Your task to perform on an android device: turn vacation reply on in the gmail app Image 0: 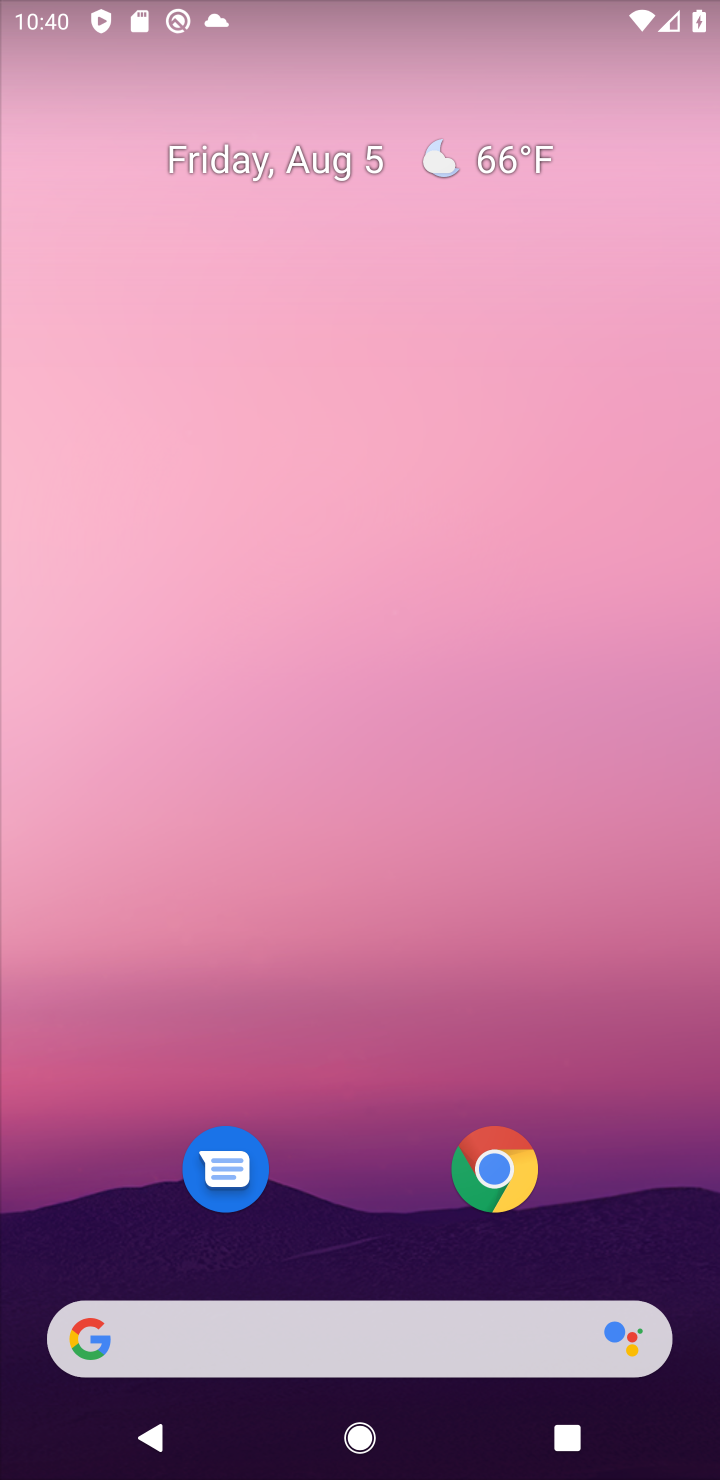
Step 0: drag from (625, 1115) to (572, 212)
Your task to perform on an android device: turn vacation reply on in the gmail app Image 1: 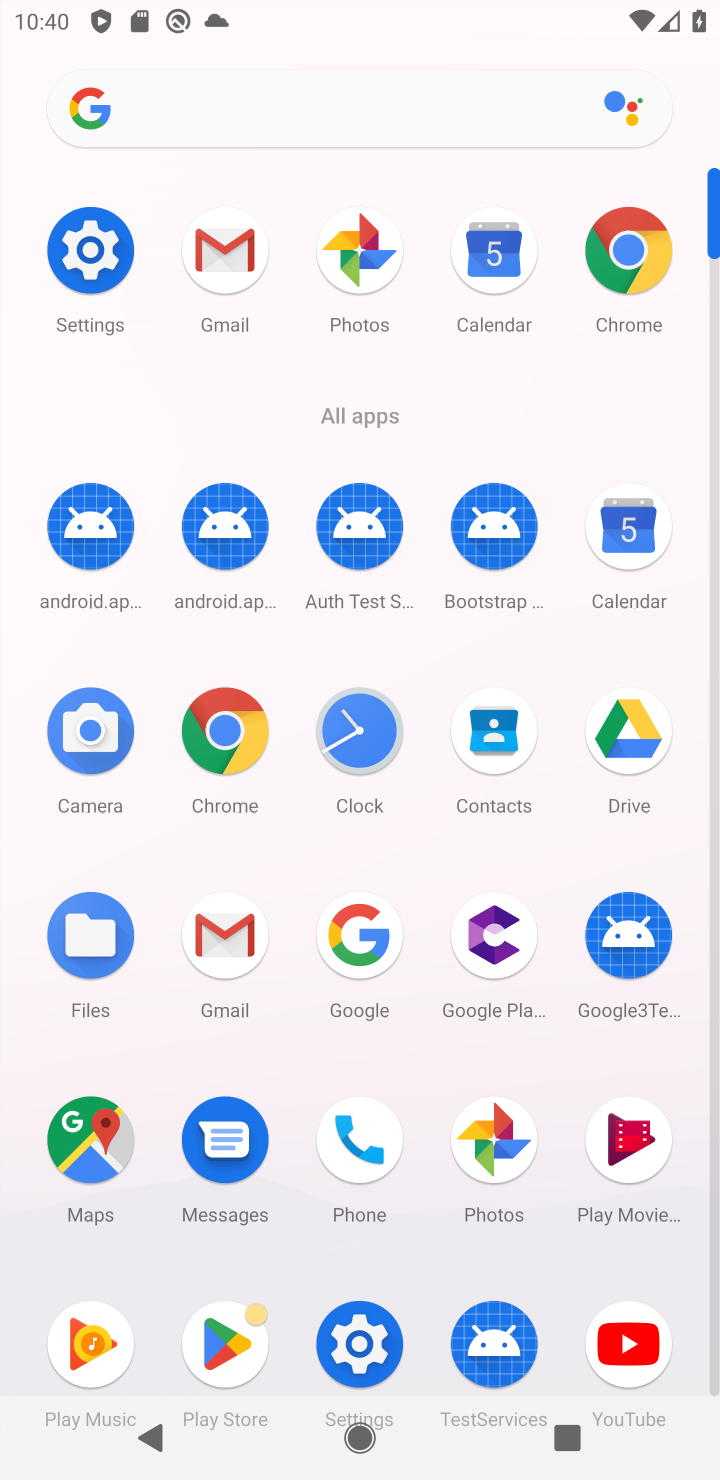
Step 1: click (222, 930)
Your task to perform on an android device: turn vacation reply on in the gmail app Image 2: 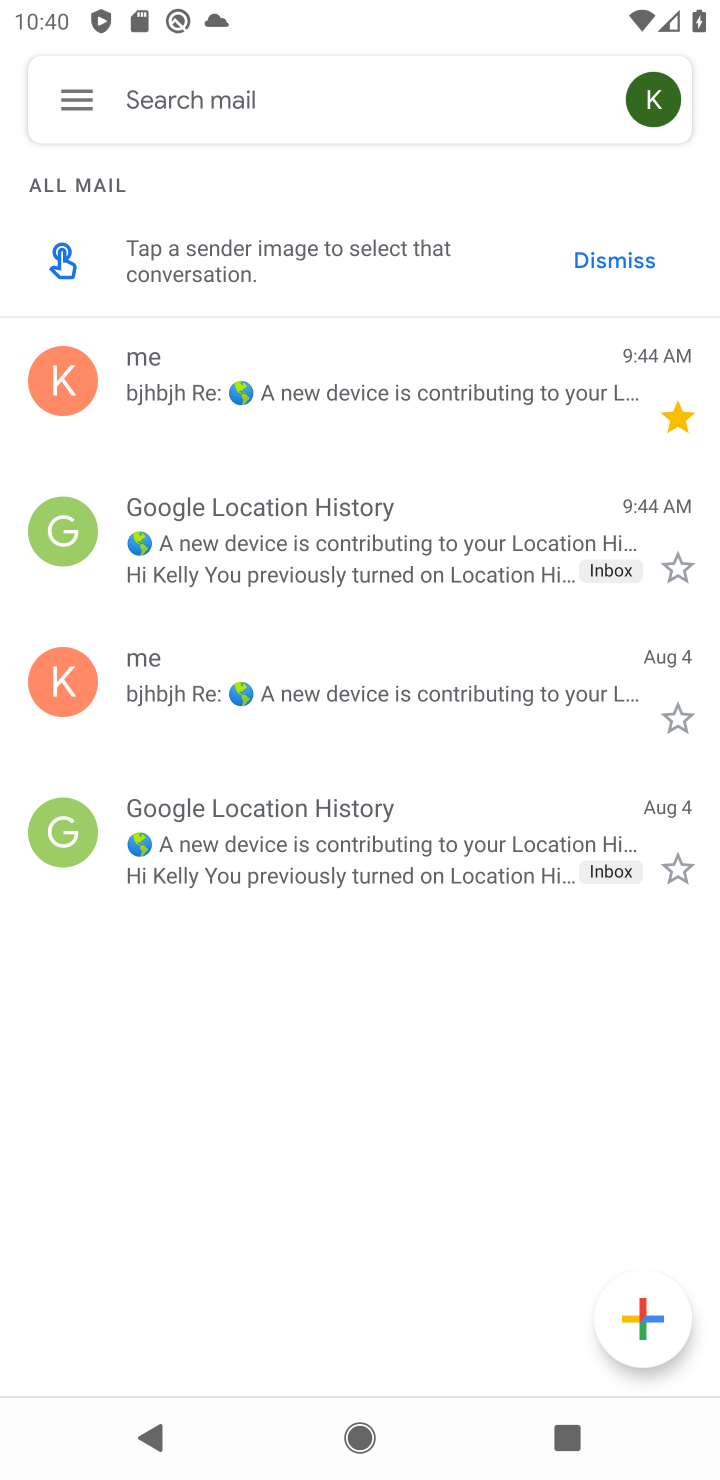
Step 2: click (73, 103)
Your task to perform on an android device: turn vacation reply on in the gmail app Image 3: 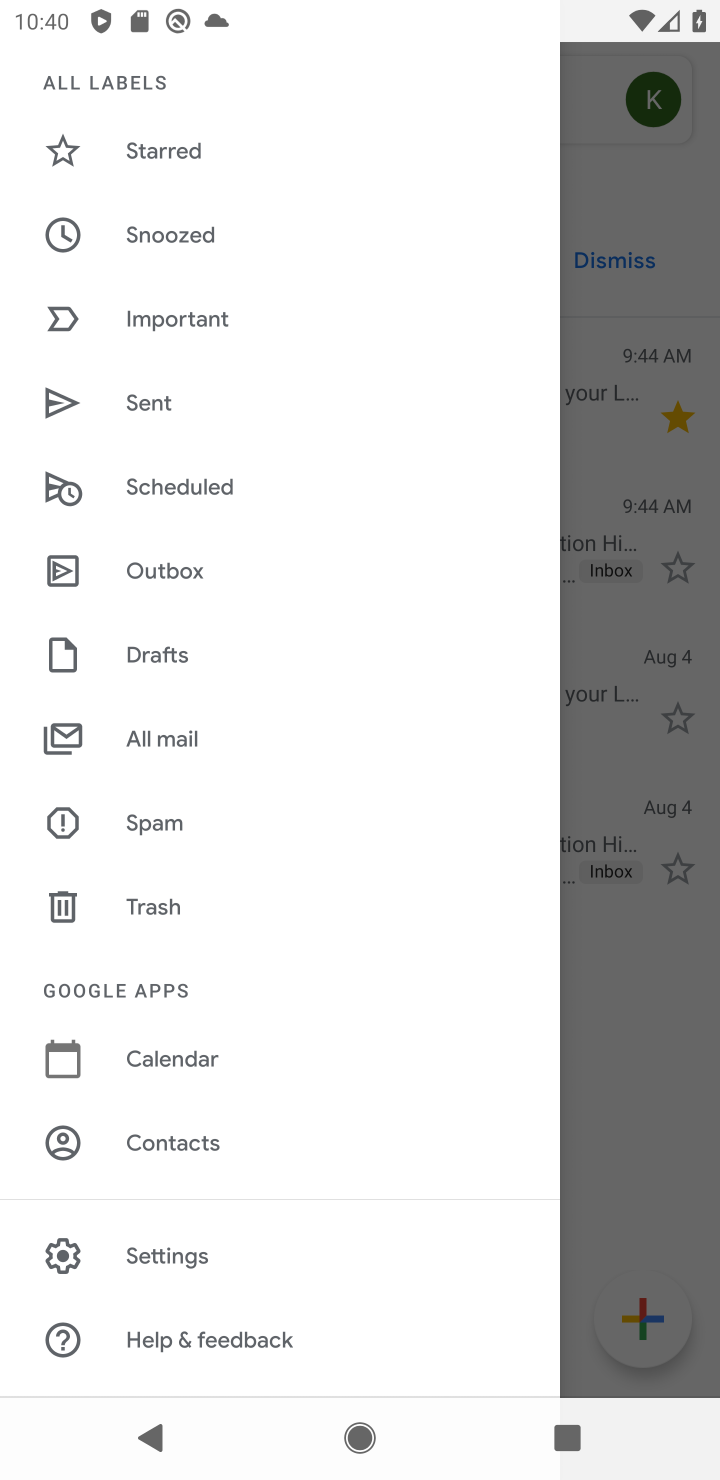
Step 3: click (163, 1256)
Your task to perform on an android device: turn vacation reply on in the gmail app Image 4: 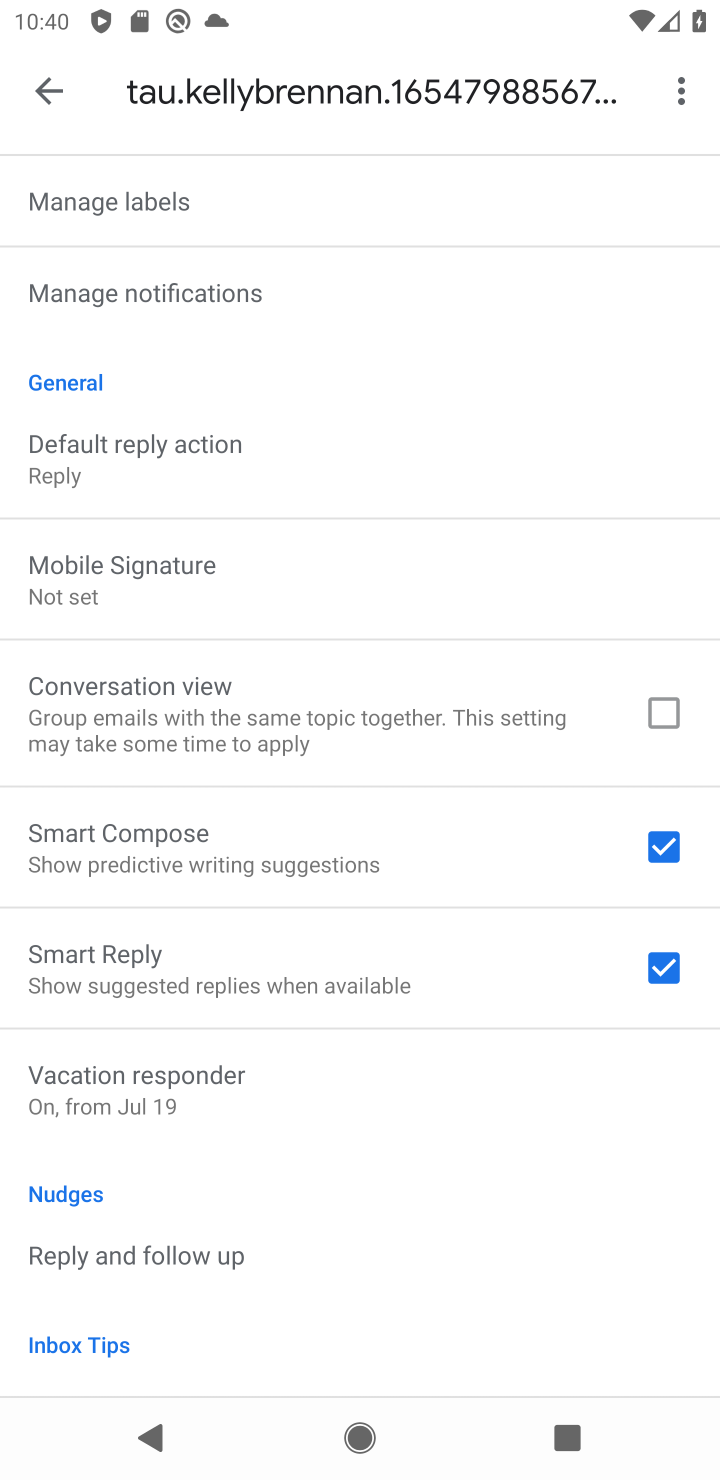
Step 4: click (186, 1089)
Your task to perform on an android device: turn vacation reply on in the gmail app Image 5: 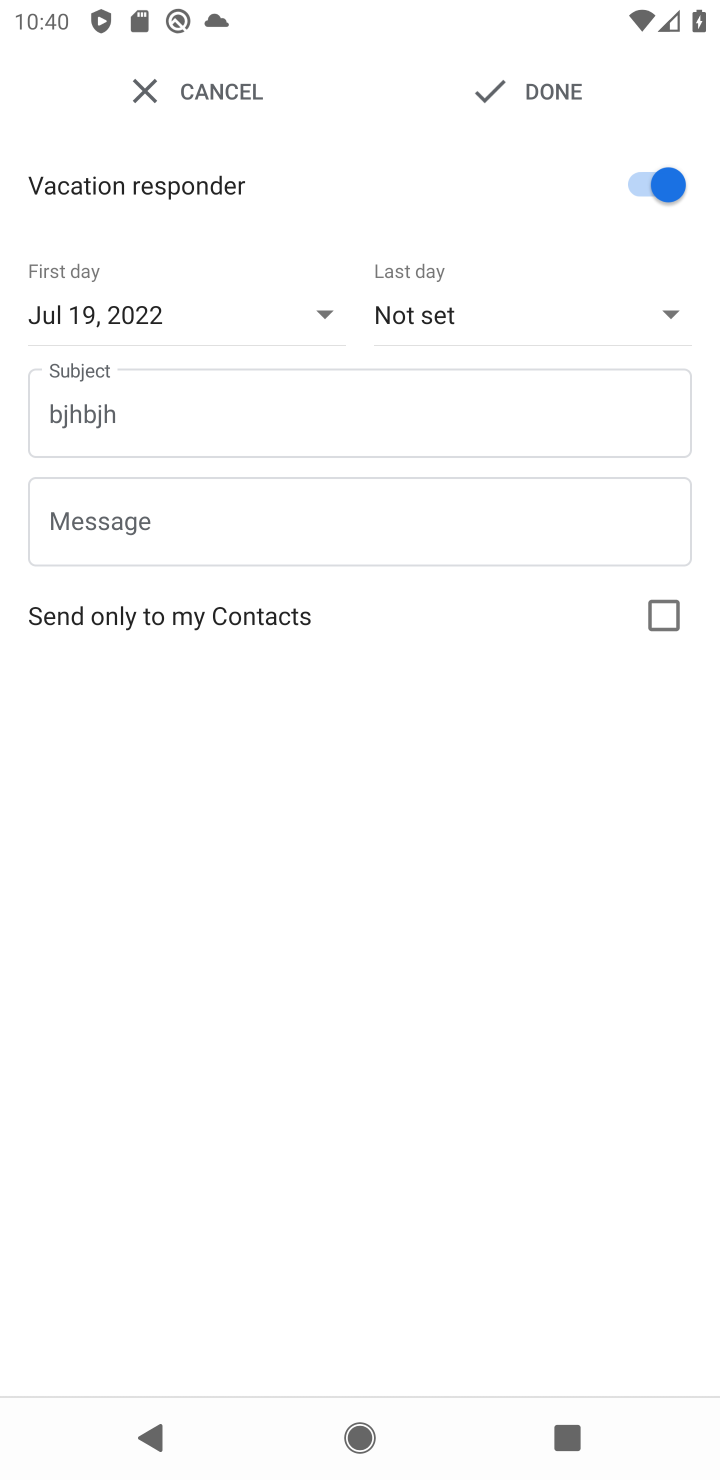
Step 5: click (526, 85)
Your task to perform on an android device: turn vacation reply on in the gmail app Image 6: 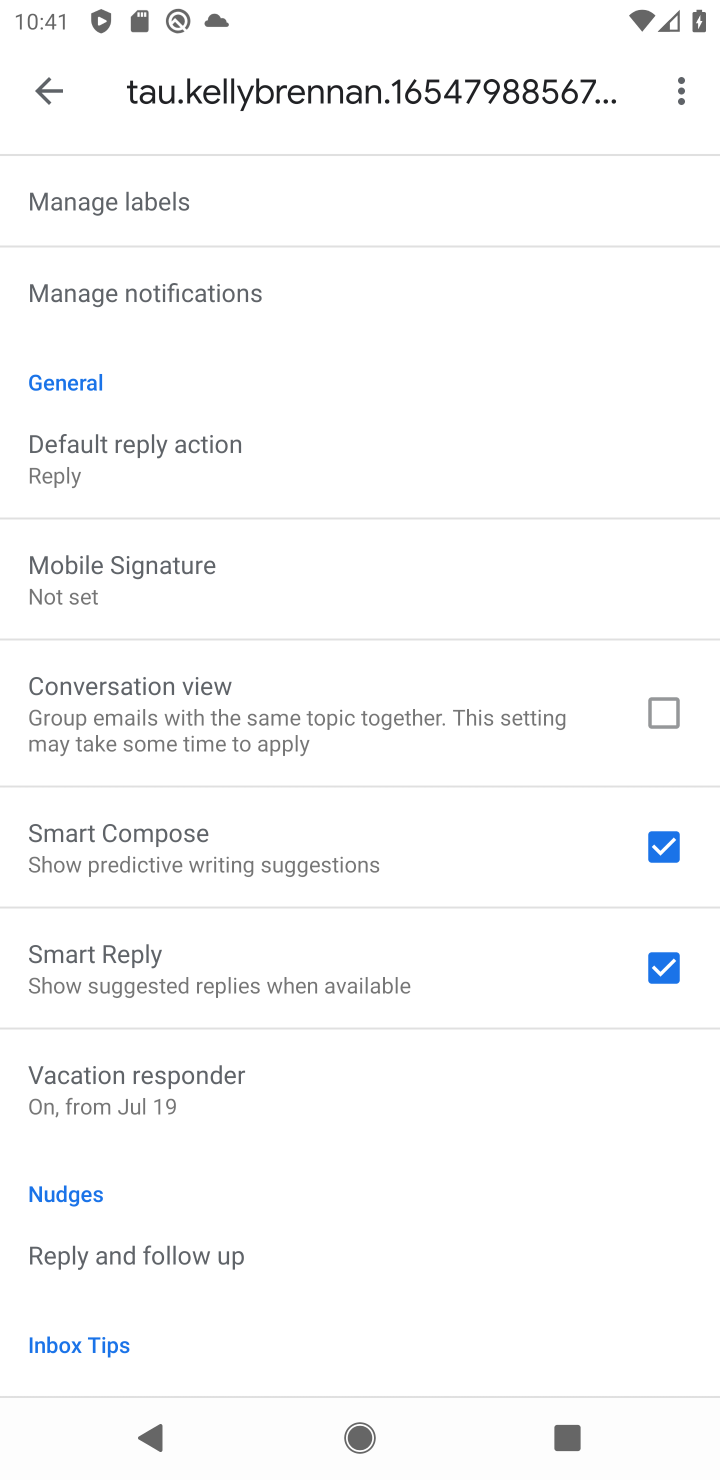
Step 6: task complete